Your task to perform on an android device: toggle show notifications on the lock screen Image 0: 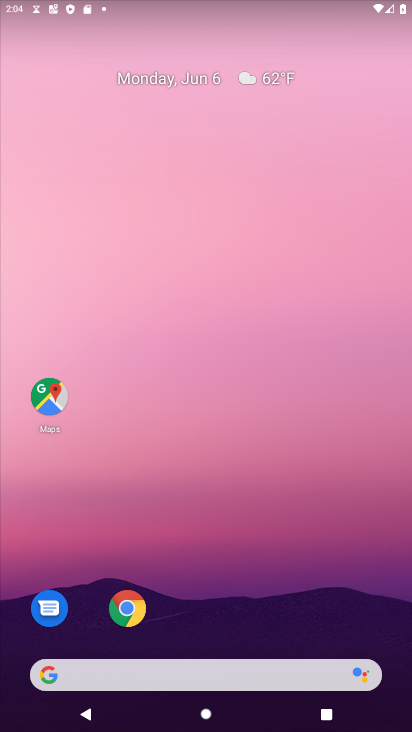
Step 0: drag from (291, 508) to (294, 0)
Your task to perform on an android device: toggle show notifications on the lock screen Image 1: 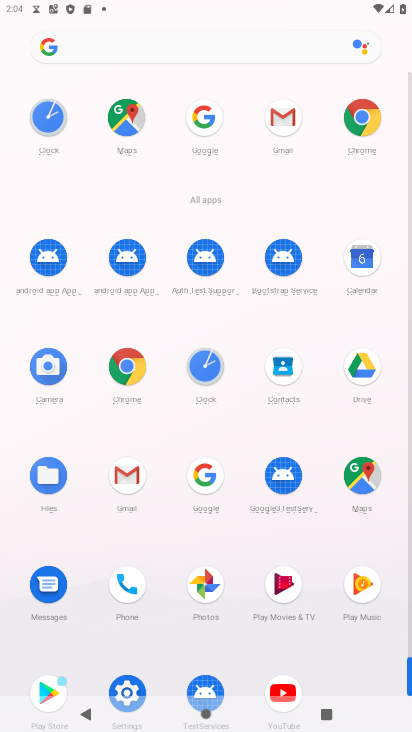
Step 1: drag from (365, 632) to (303, 291)
Your task to perform on an android device: toggle show notifications on the lock screen Image 2: 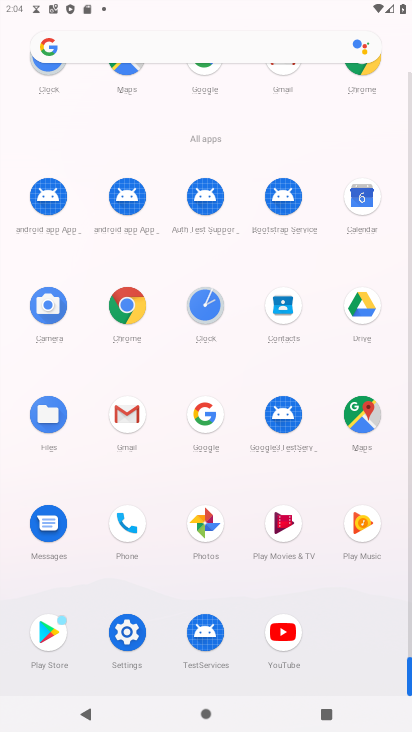
Step 2: click (113, 628)
Your task to perform on an android device: toggle show notifications on the lock screen Image 3: 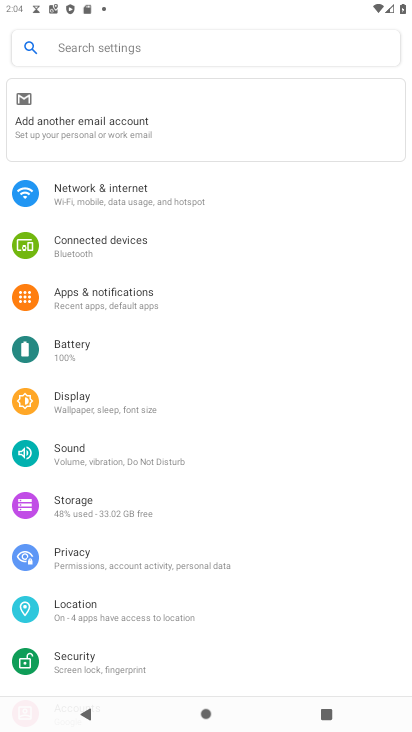
Step 3: click (126, 299)
Your task to perform on an android device: toggle show notifications on the lock screen Image 4: 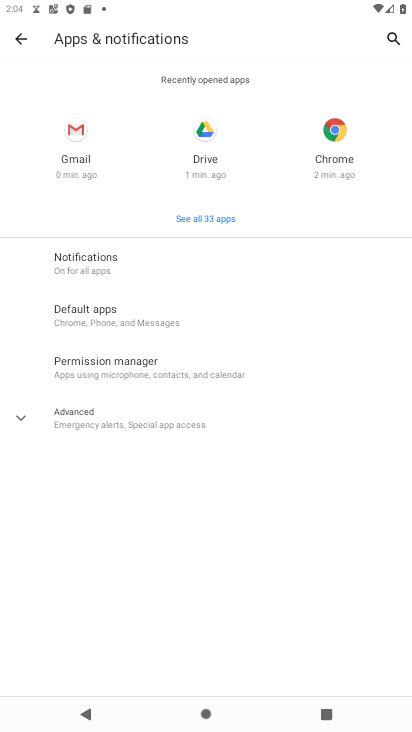
Step 4: click (71, 260)
Your task to perform on an android device: toggle show notifications on the lock screen Image 5: 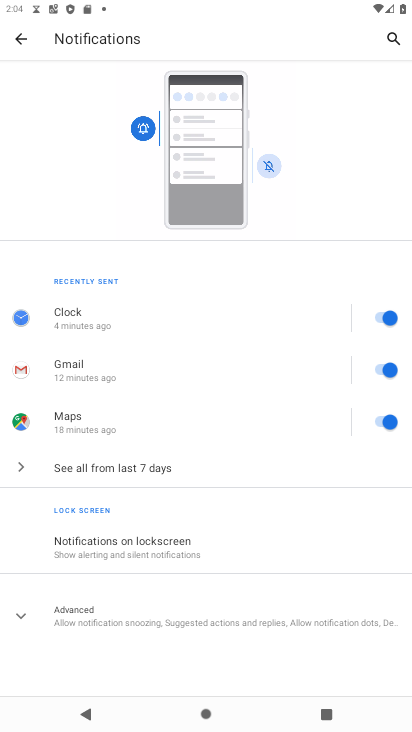
Step 5: click (80, 551)
Your task to perform on an android device: toggle show notifications on the lock screen Image 6: 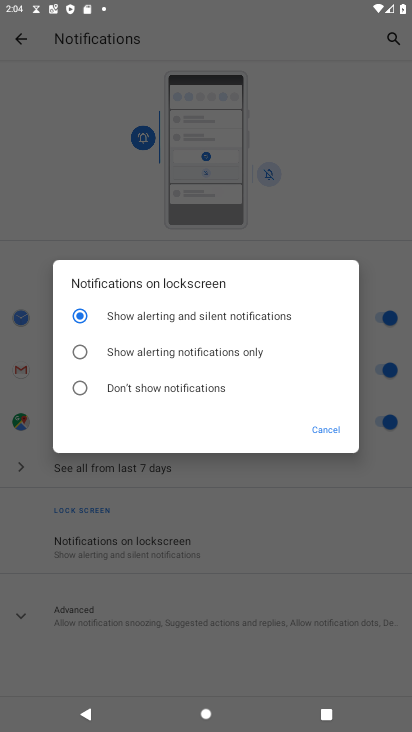
Step 6: click (114, 357)
Your task to perform on an android device: toggle show notifications on the lock screen Image 7: 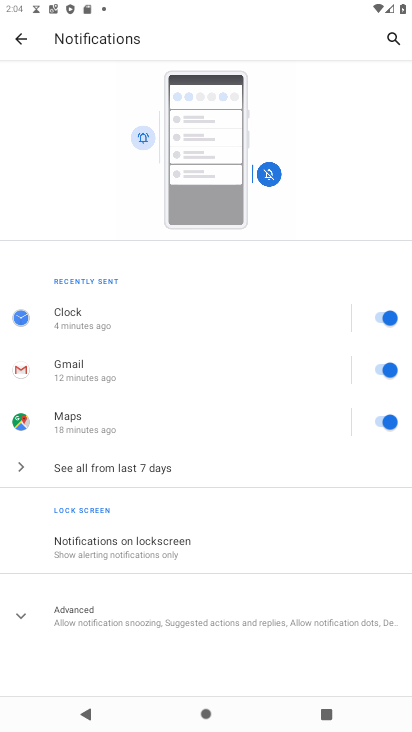
Step 7: task complete